Your task to perform on an android device: turn off data saver in the chrome app Image 0: 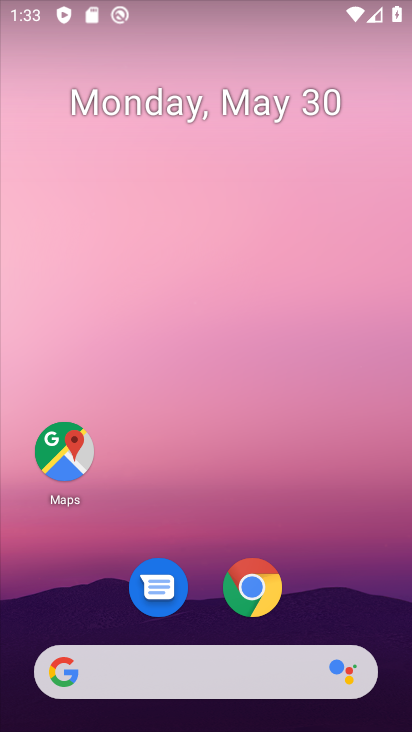
Step 0: click (249, 600)
Your task to perform on an android device: turn off data saver in the chrome app Image 1: 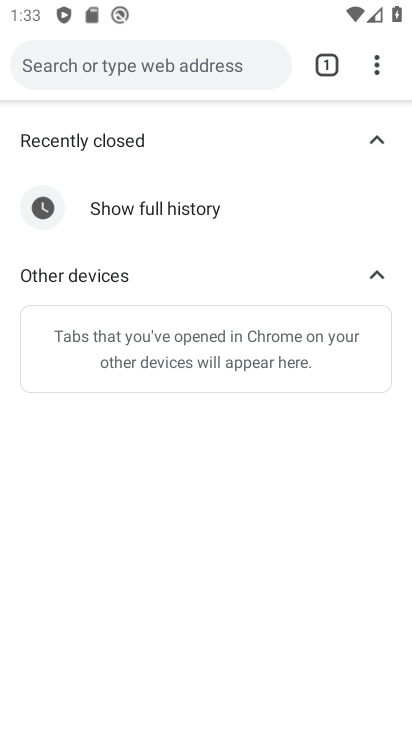
Step 1: click (376, 65)
Your task to perform on an android device: turn off data saver in the chrome app Image 2: 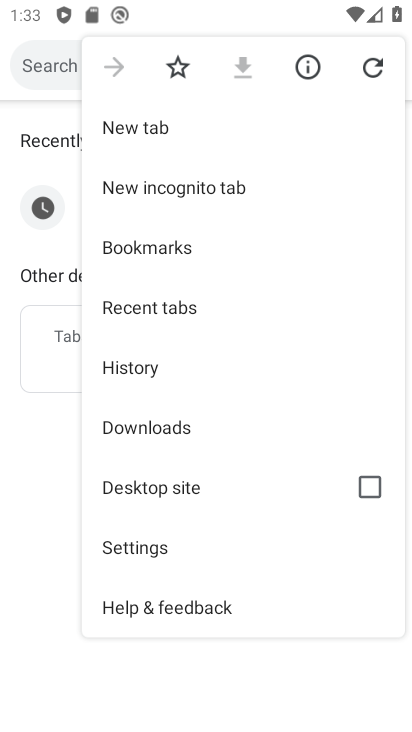
Step 2: click (157, 549)
Your task to perform on an android device: turn off data saver in the chrome app Image 3: 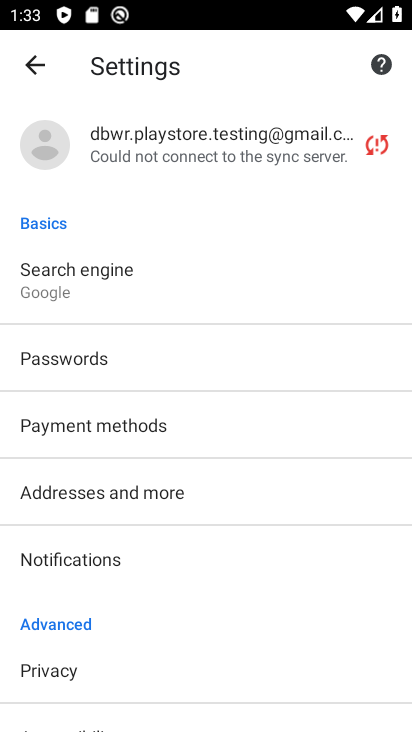
Step 3: drag from (176, 622) to (156, 243)
Your task to perform on an android device: turn off data saver in the chrome app Image 4: 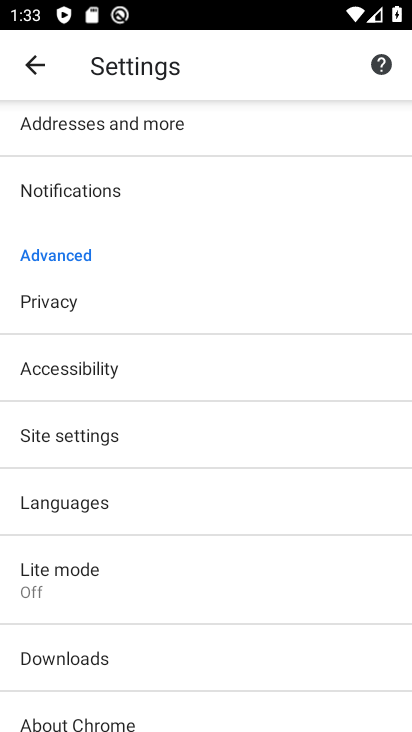
Step 4: click (90, 582)
Your task to perform on an android device: turn off data saver in the chrome app Image 5: 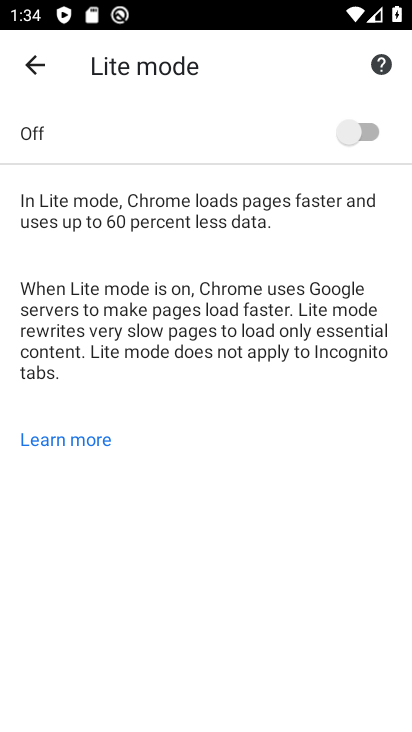
Step 5: task complete